Your task to perform on an android device: Open Google Chrome Image 0: 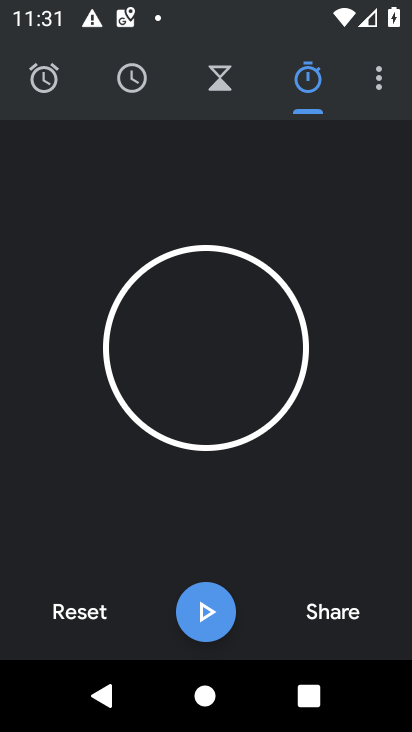
Step 0: press back button
Your task to perform on an android device: Open Google Chrome Image 1: 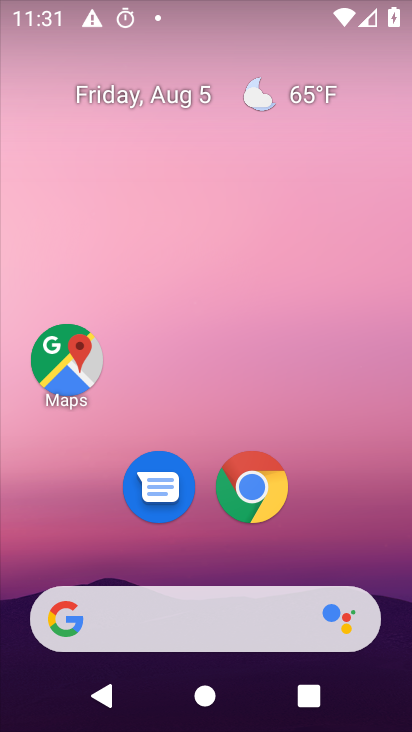
Step 1: click (249, 493)
Your task to perform on an android device: Open Google Chrome Image 2: 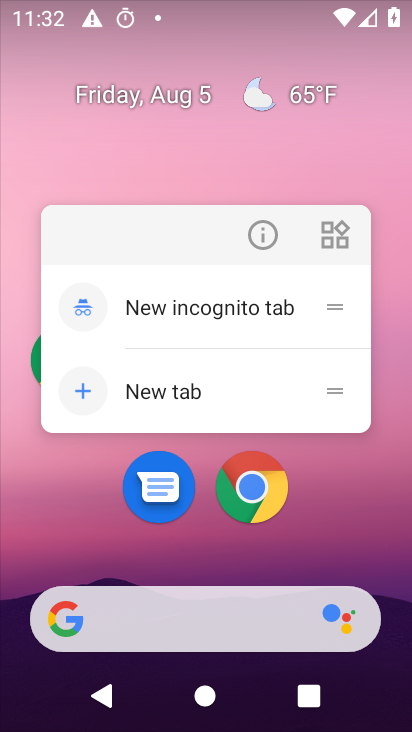
Step 2: click (245, 481)
Your task to perform on an android device: Open Google Chrome Image 3: 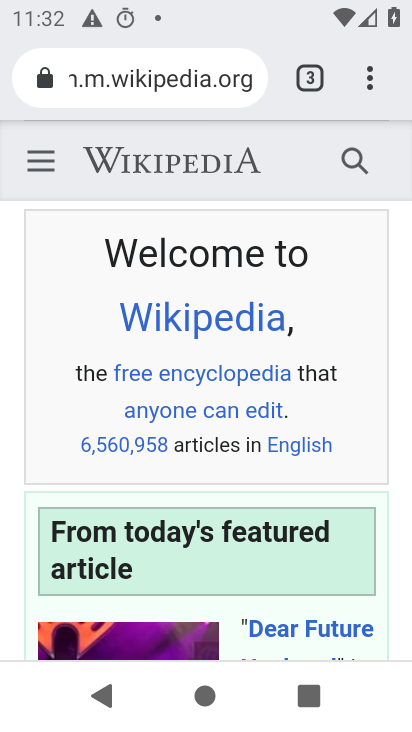
Step 3: task complete